Your task to perform on an android device: Add rayovac triple a to the cart on bestbuy Image 0: 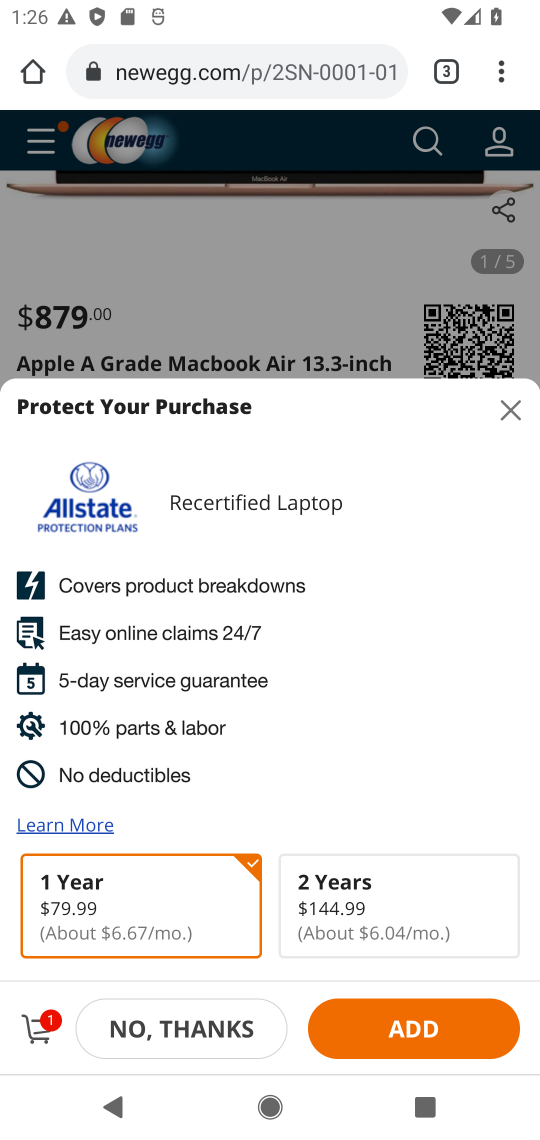
Step 0: press home button
Your task to perform on an android device: Add rayovac triple a to the cart on bestbuy Image 1: 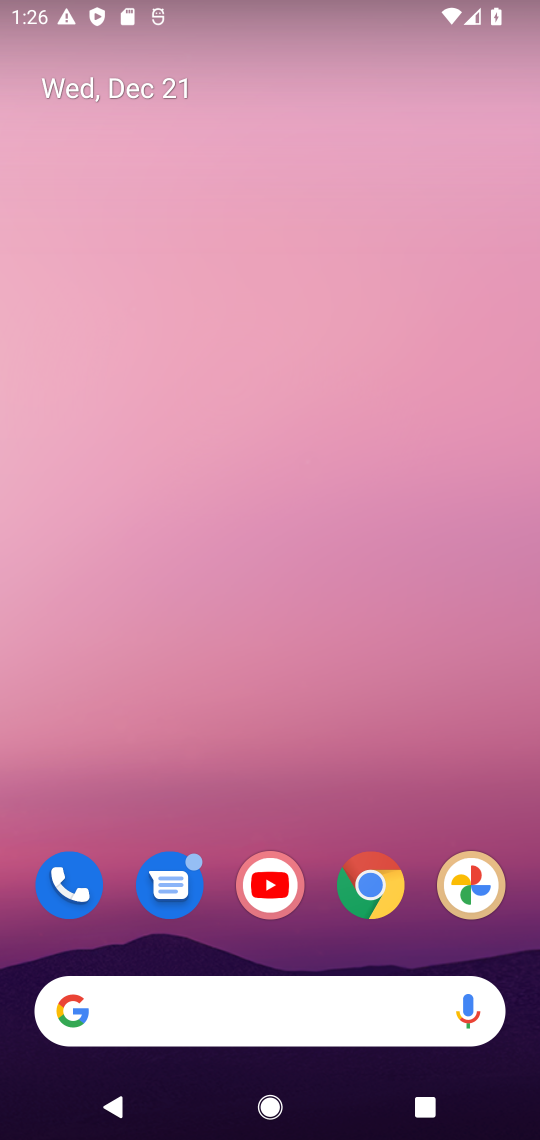
Step 1: drag from (286, 992) to (286, 160)
Your task to perform on an android device: Add rayovac triple a to the cart on bestbuy Image 2: 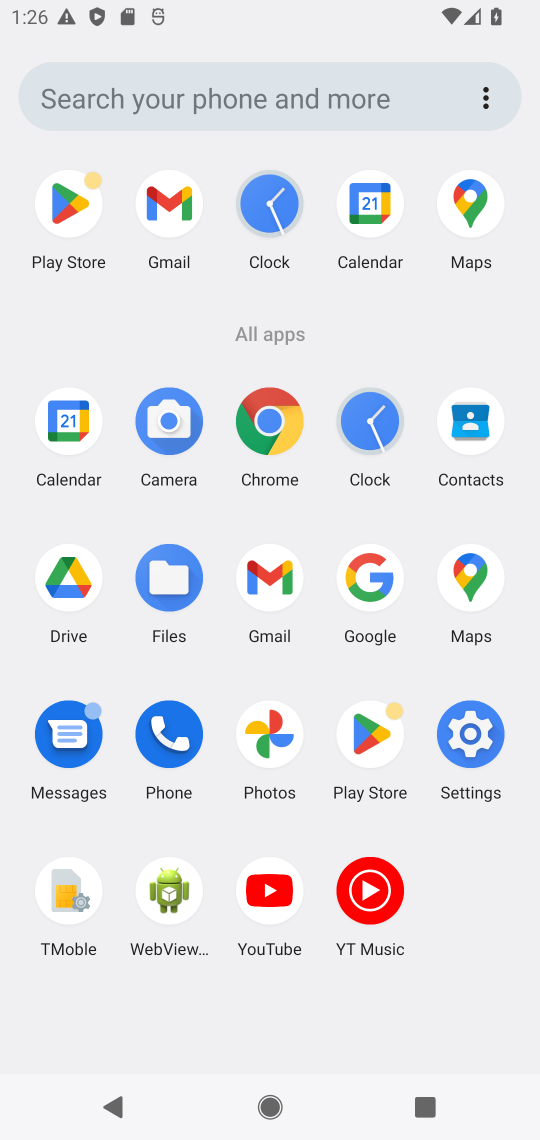
Step 2: click (363, 584)
Your task to perform on an android device: Add rayovac triple a to the cart on bestbuy Image 3: 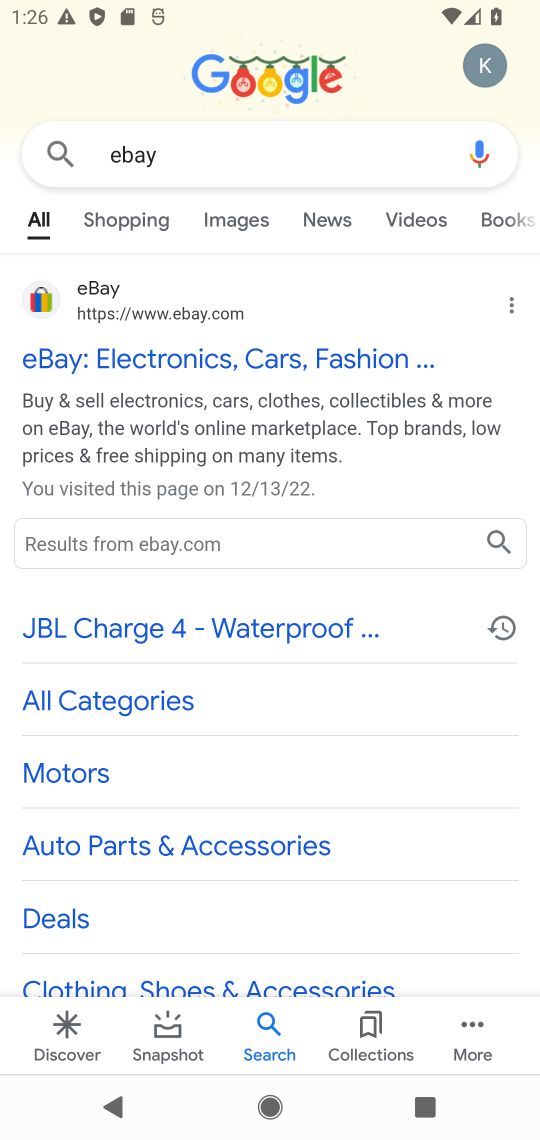
Step 3: click (121, 150)
Your task to perform on an android device: Add rayovac triple a to the cart on bestbuy Image 4: 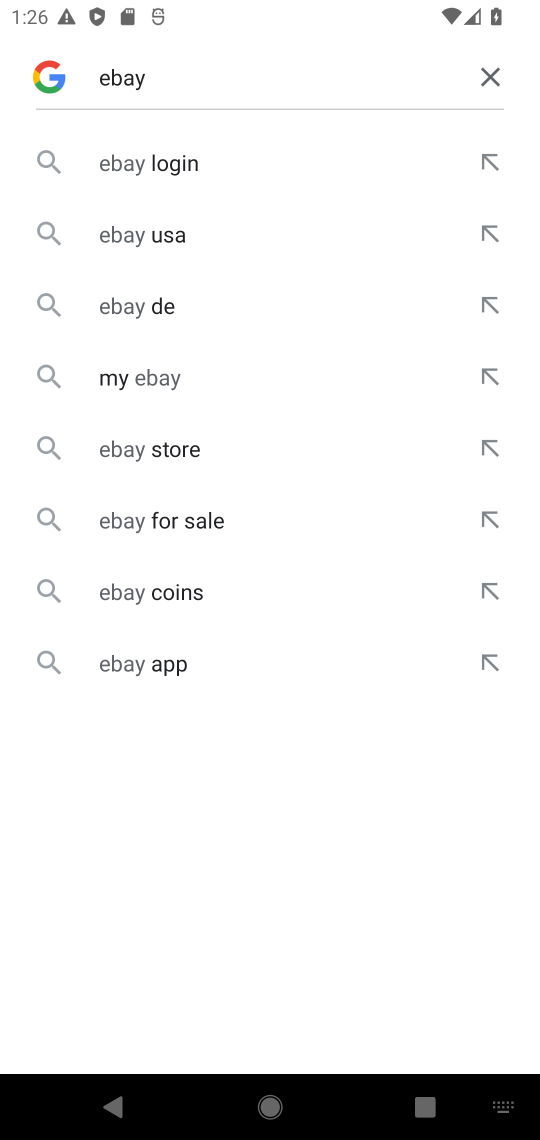
Step 4: click (497, 69)
Your task to perform on an android device: Add rayovac triple a to the cart on bestbuy Image 5: 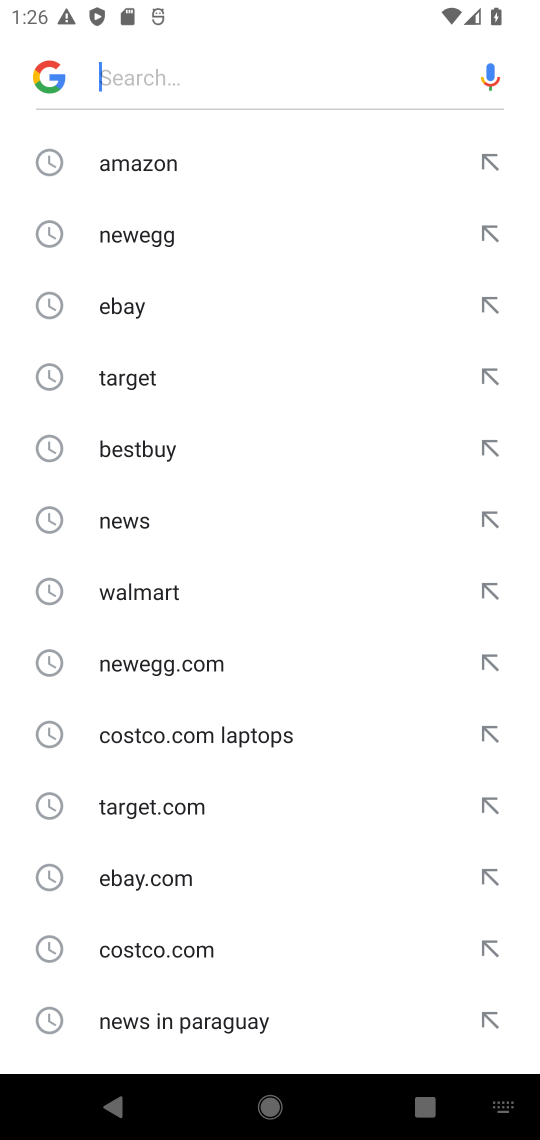
Step 5: click (144, 455)
Your task to perform on an android device: Add rayovac triple a to the cart on bestbuy Image 6: 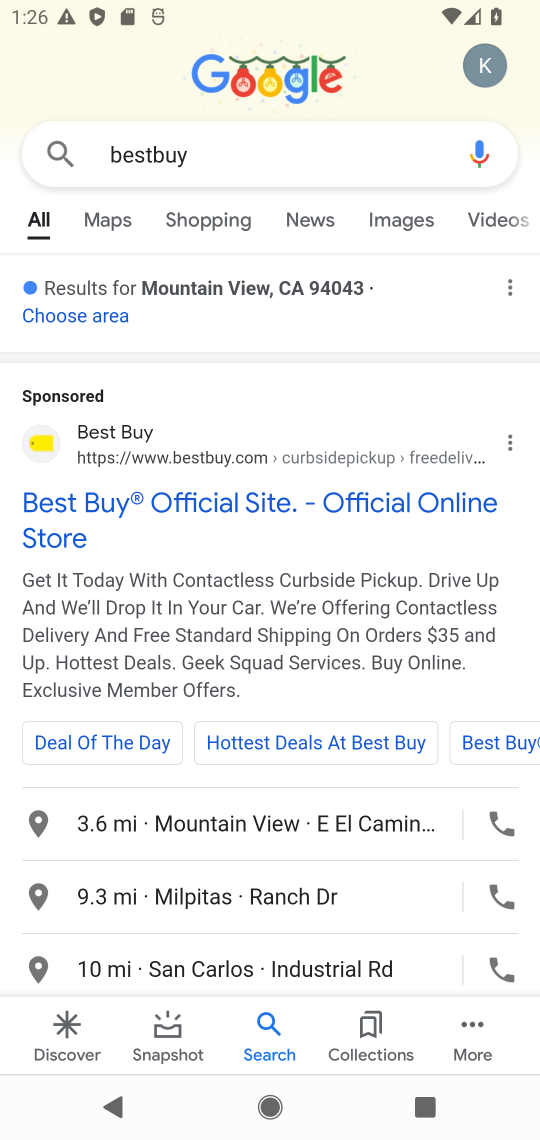
Step 6: click (200, 506)
Your task to perform on an android device: Add rayovac triple a to the cart on bestbuy Image 7: 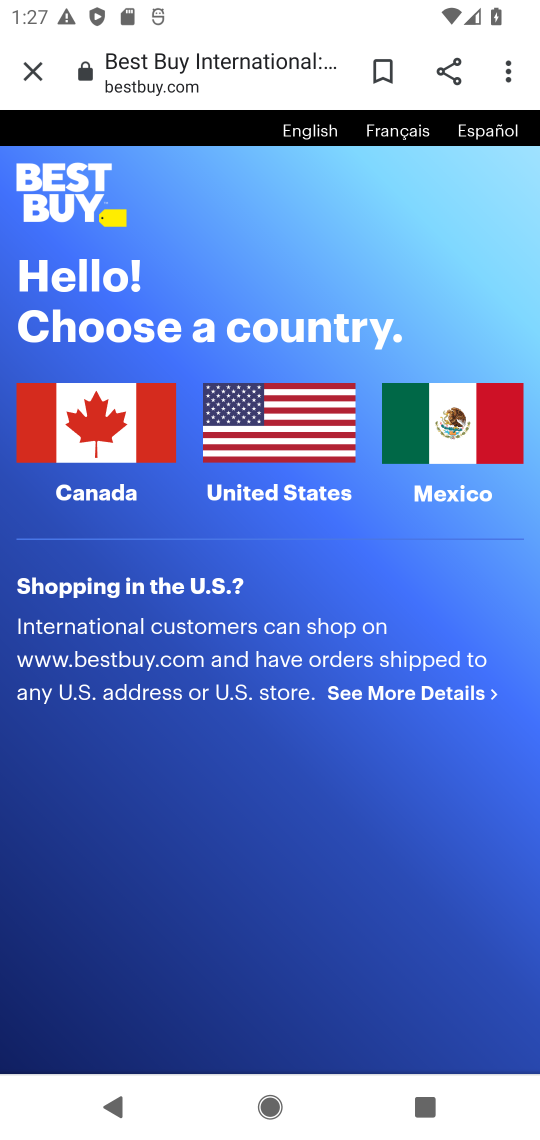
Step 7: click (259, 433)
Your task to perform on an android device: Add rayovac triple a to the cart on bestbuy Image 8: 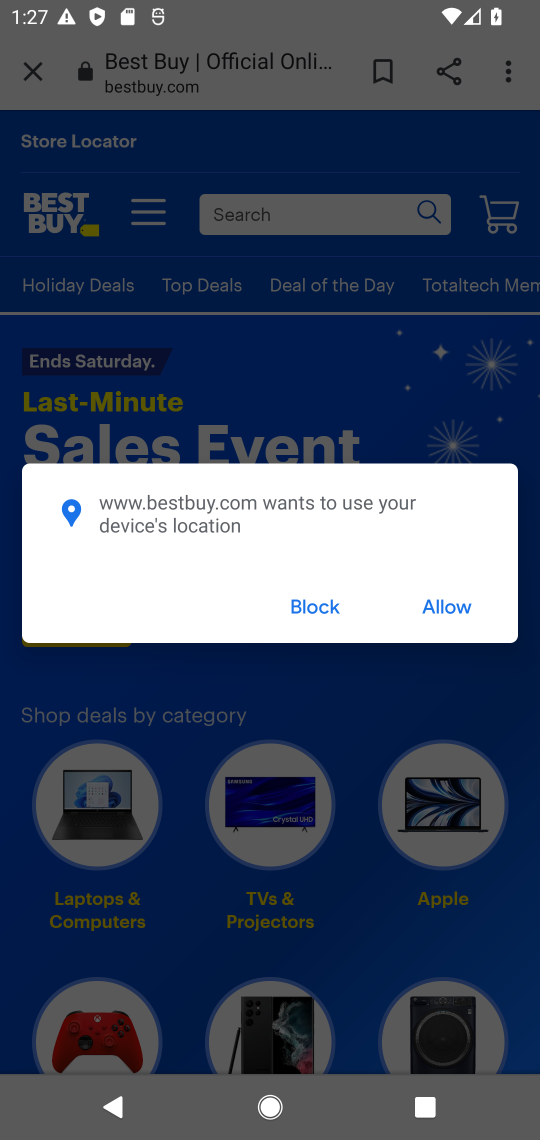
Step 8: click (431, 606)
Your task to perform on an android device: Add rayovac triple a to the cart on bestbuy Image 9: 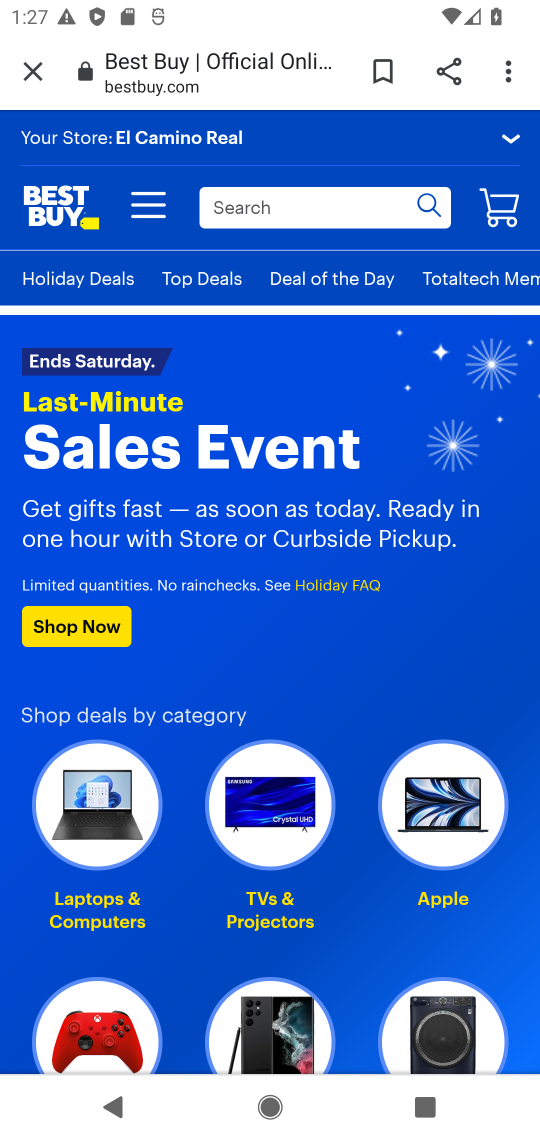
Step 9: click (254, 209)
Your task to perform on an android device: Add rayovac triple a to the cart on bestbuy Image 10: 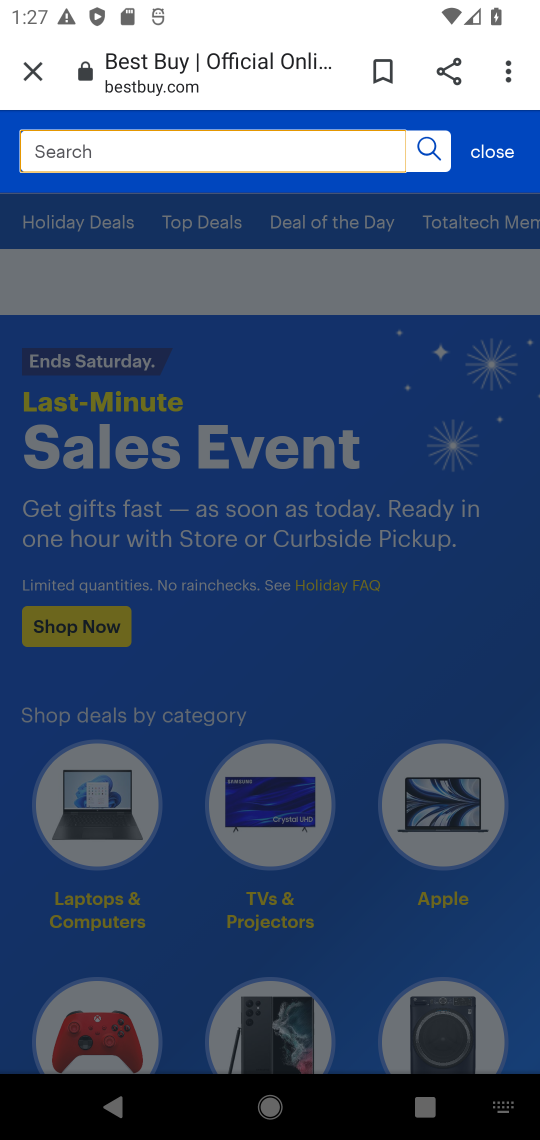
Step 10: type "rayovac triple a"
Your task to perform on an android device: Add rayovac triple a to the cart on bestbuy Image 11: 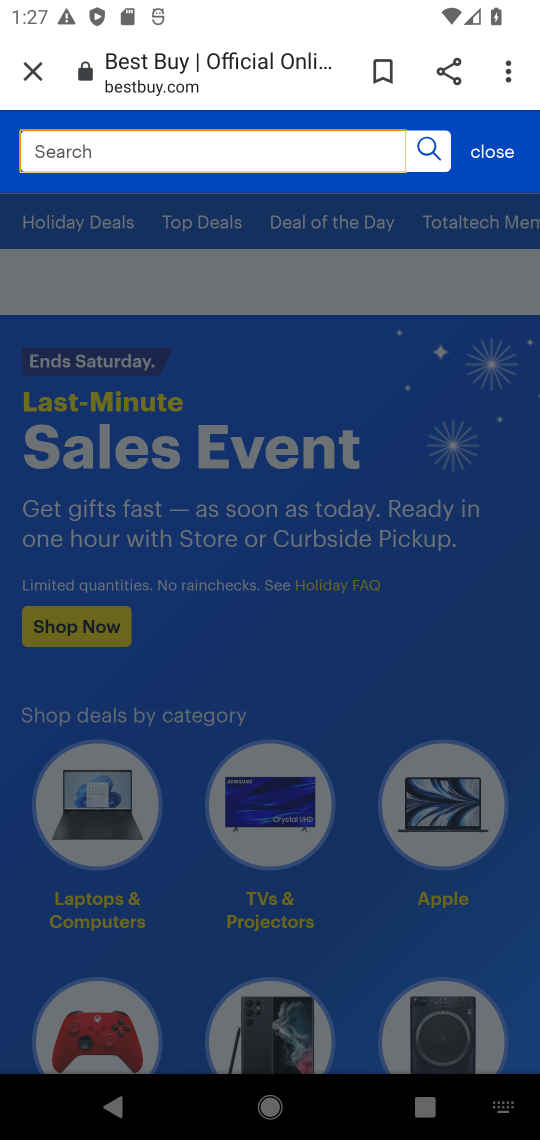
Step 11: click (441, 149)
Your task to perform on an android device: Add rayovac triple a to the cart on bestbuy Image 12: 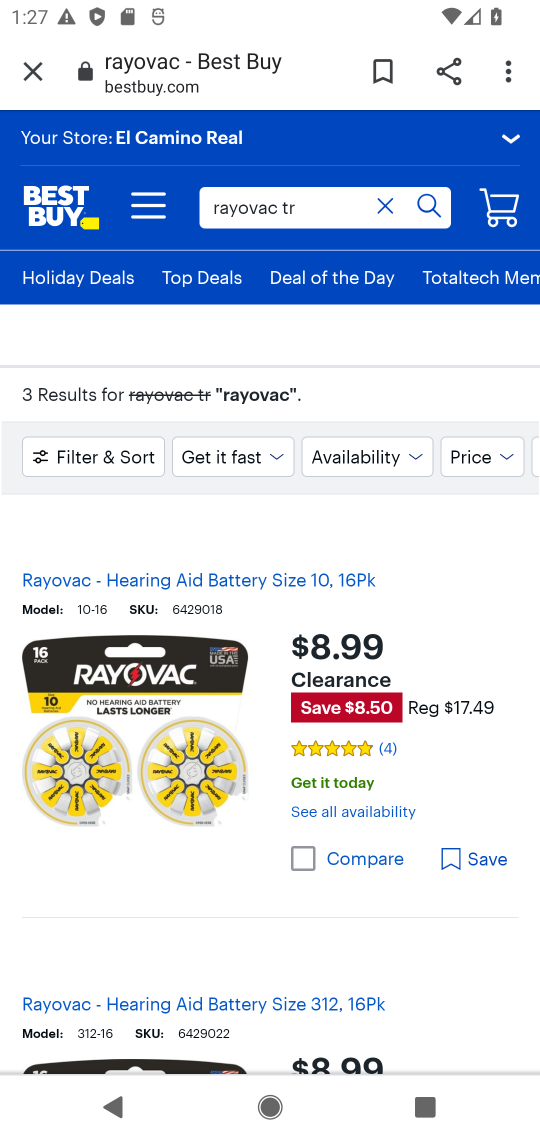
Step 12: drag from (396, 843) to (396, 483)
Your task to perform on an android device: Add rayovac triple a to the cart on bestbuy Image 13: 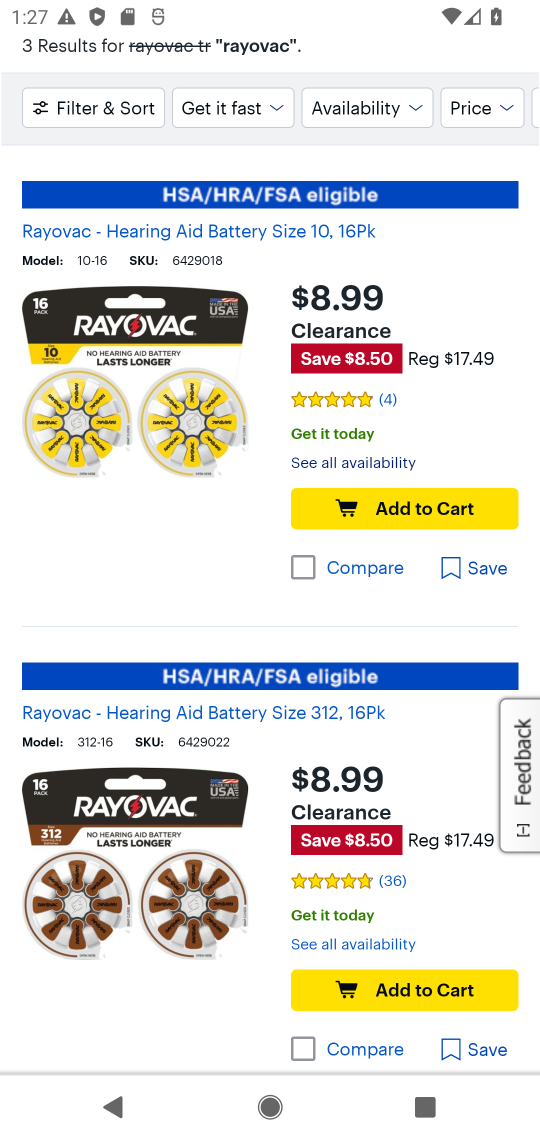
Step 13: click (413, 510)
Your task to perform on an android device: Add rayovac triple a to the cart on bestbuy Image 14: 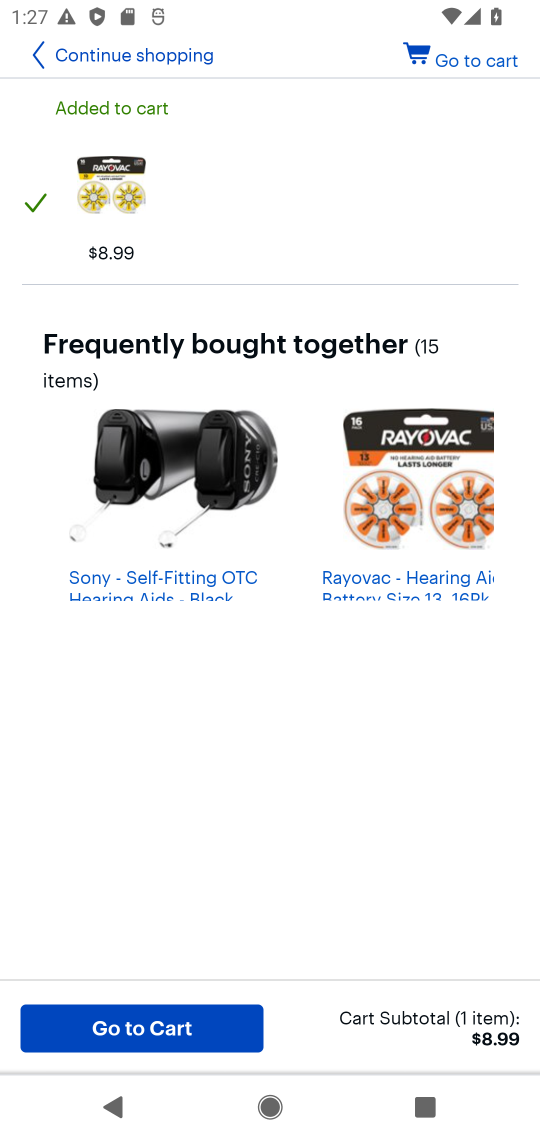
Step 14: task complete